Your task to perform on an android device: turn on javascript in the chrome app Image 0: 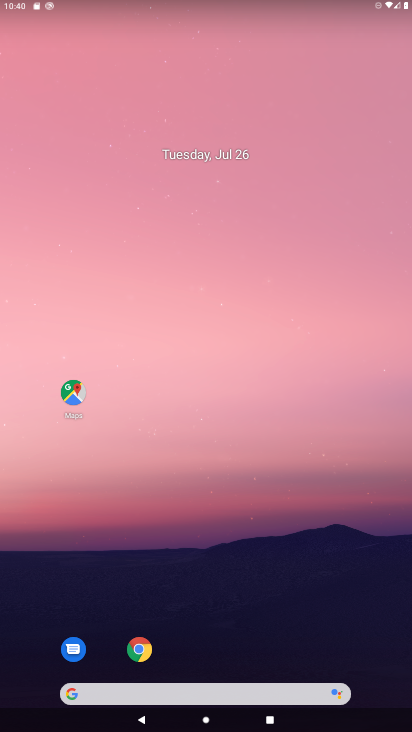
Step 0: click (133, 647)
Your task to perform on an android device: turn on javascript in the chrome app Image 1: 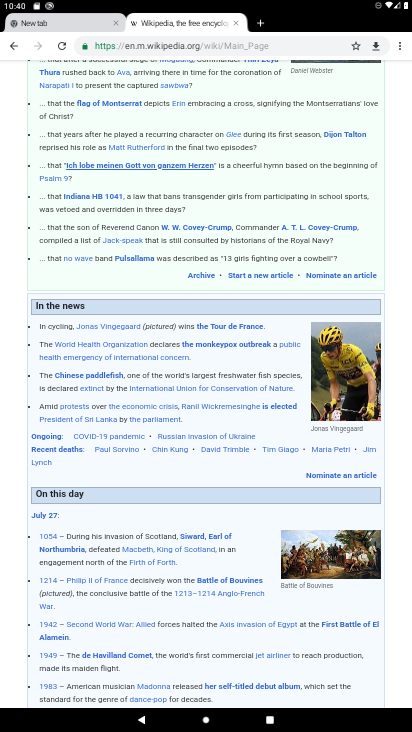
Step 1: click (396, 45)
Your task to perform on an android device: turn on javascript in the chrome app Image 2: 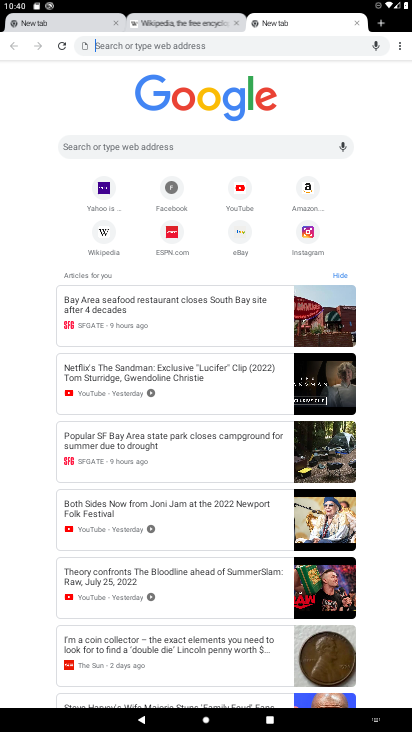
Step 2: click (397, 48)
Your task to perform on an android device: turn on javascript in the chrome app Image 3: 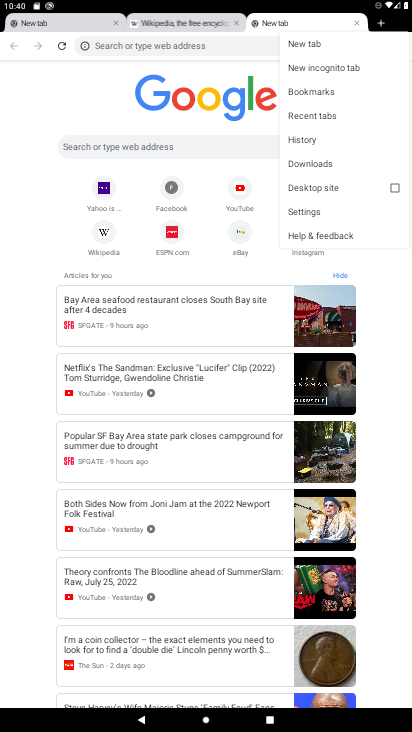
Step 3: click (312, 207)
Your task to perform on an android device: turn on javascript in the chrome app Image 4: 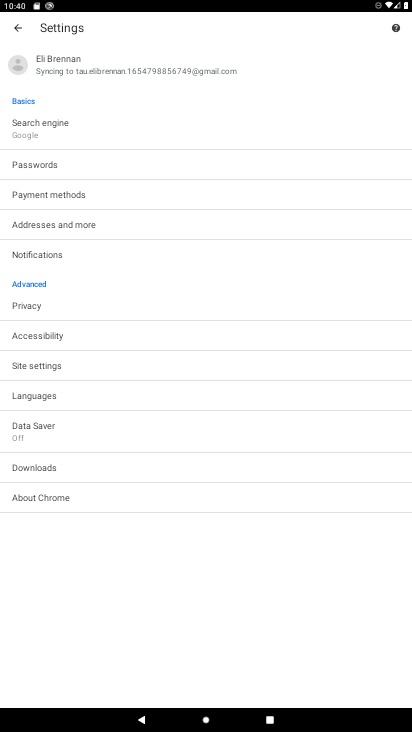
Step 4: click (43, 367)
Your task to perform on an android device: turn on javascript in the chrome app Image 5: 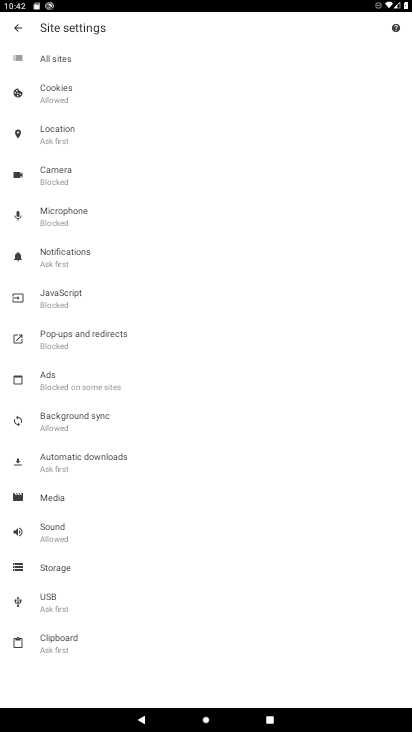
Step 5: click (70, 291)
Your task to perform on an android device: turn on javascript in the chrome app Image 6: 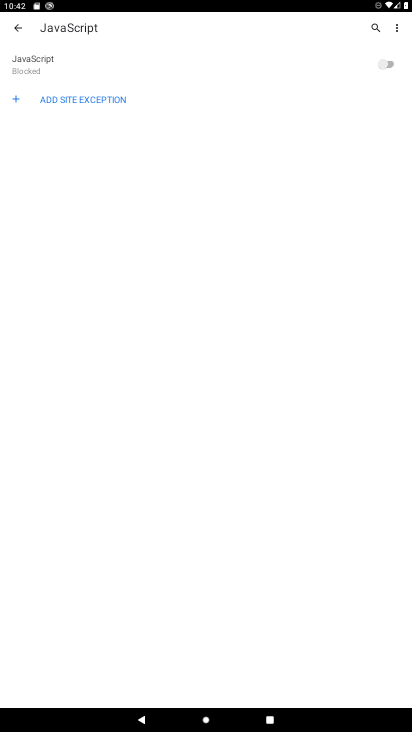
Step 6: click (384, 59)
Your task to perform on an android device: turn on javascript in the chrome app Image 7: 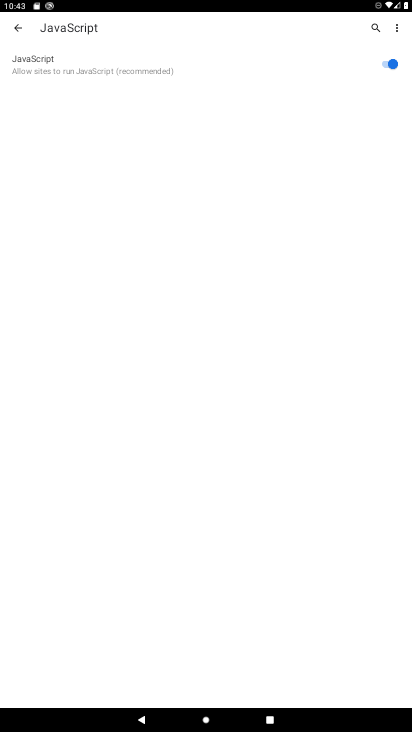
Step 7: task complete